Your task to perform on an android device: Open settings Image 0: 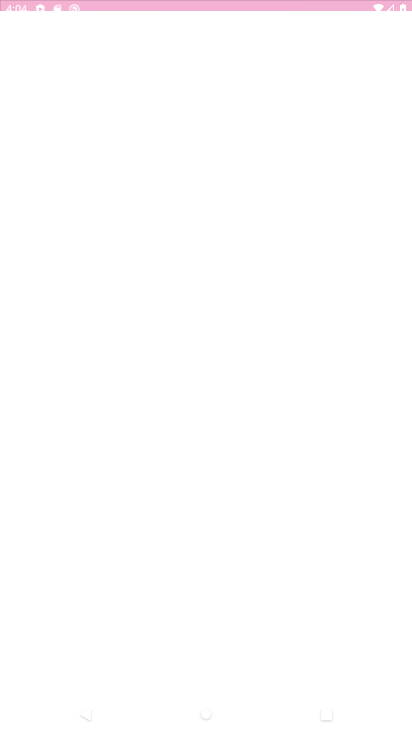
Step 0: press home button
Your task to perform on an android device: Open settings Image 1: 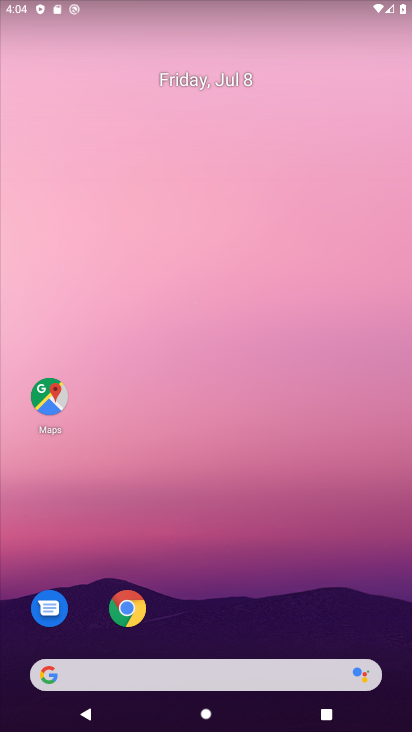
Step 1: press home button
Your task to perform on an android device: Open settings Image 2: 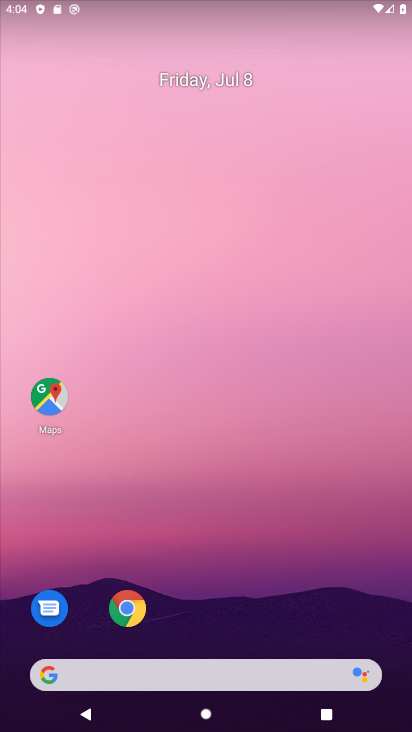
Step 2: drag from (252, 565) to (305, 128)
Your task to perform on an android device: Open settings Image 3: 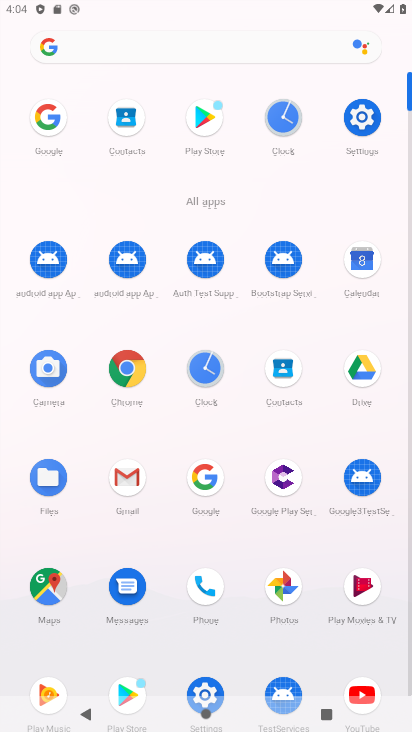
Step 3: click (376, 116)
Your task to perform on an android device: Open settings Image 4: 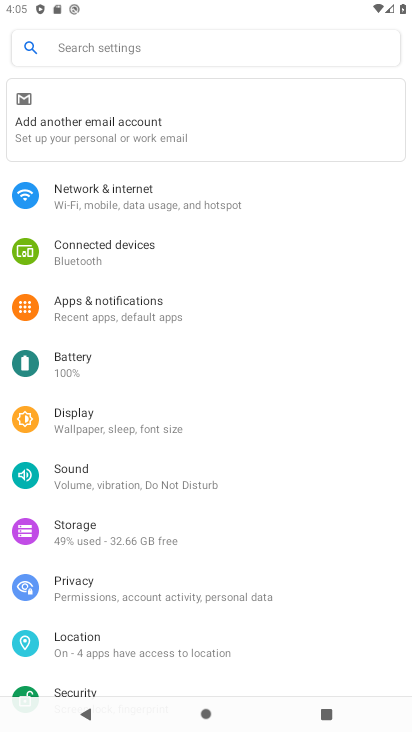
Step 4: task complete